Your task to perform on an android device: turn on improve location accuracy Image 0: 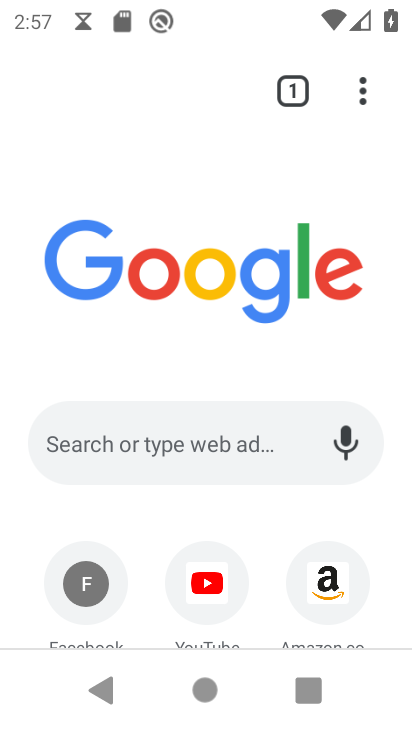
Step 0: press home button
Your task to perform on an android device: turn on improve location accuracy Image 1: 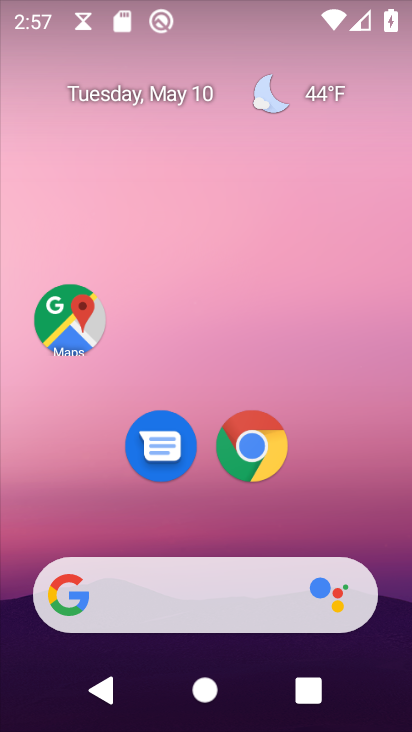
Step 1: drag from (384, 500) to (409, 141)
Your task to perform on an android device: turn on improve location accuracy Image 2: 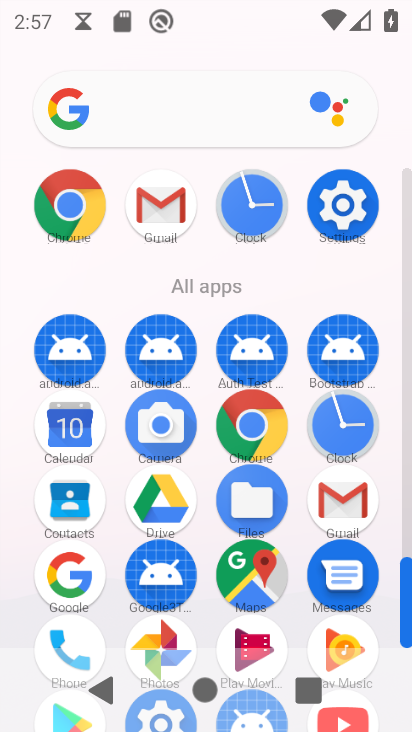
Step 2: click (348, 220)
Your task to perform on an android device: turn on improve location accuracy Image 3: 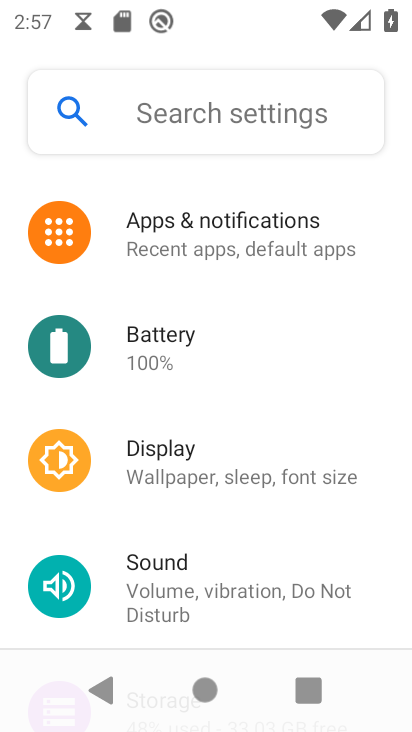
Step 3: drag from (250, 503) to (342, 186)
Your task to perform on an android device: turn on improve location accuracy Image 4: 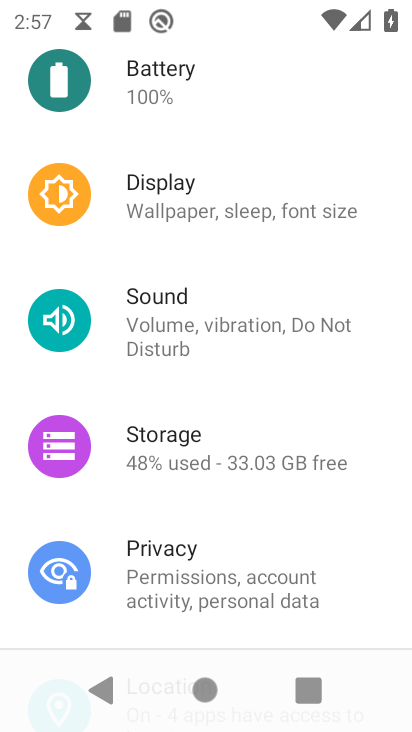
Step 4: drag from (305, 544) to (335, 143)
Your task to perform on an android device: turn on improve location accuracy Image 5: 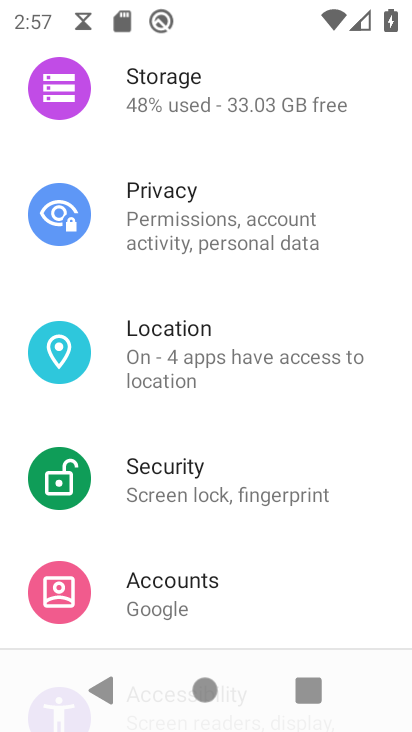
Step 5: click (173, 353)
Your task to perform on an android device: turn on improve location accuracy Image 6: 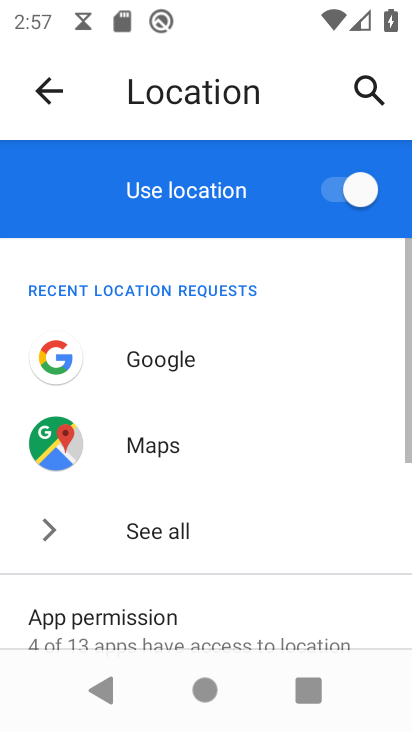
Step 6: drag from (253, 453) to (280, 289)
Your task to perform on an android device: turn on improve location accuracy Image 7: 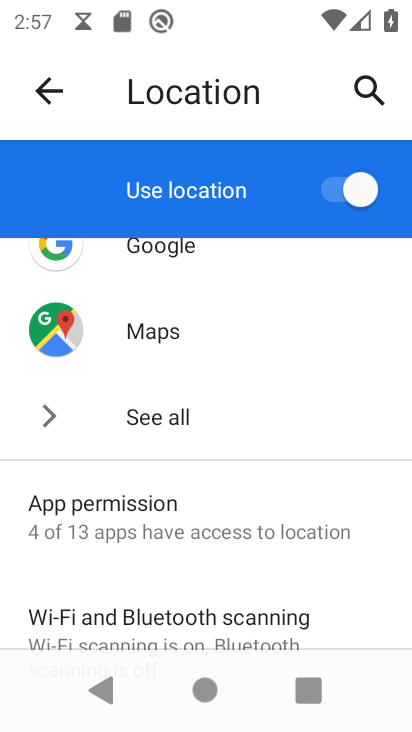
Step 7: click (285, 278)
Your task to perform on an android device: turn on improve location accuracy Image 8: 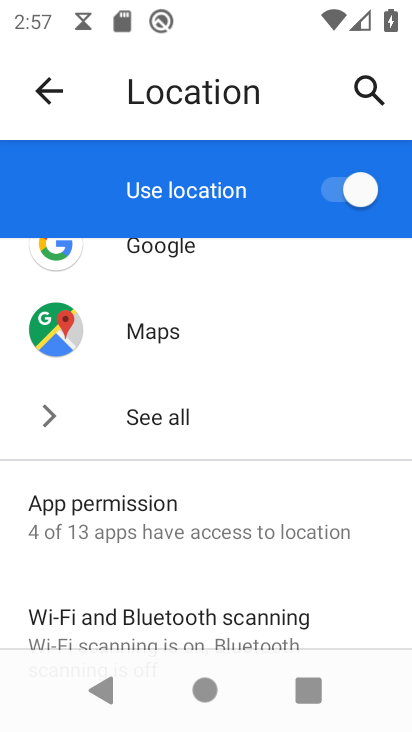
Step 8: drag from (193, 480) to (208, 268)
Your task to perform on an android device: turn on improve location accuracy Image 9: 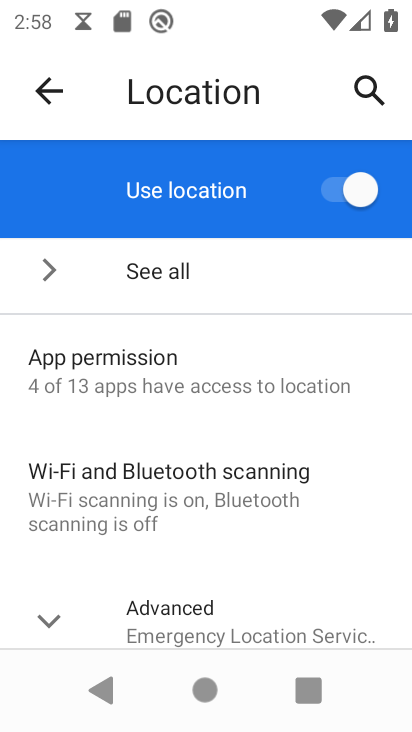
Step 9: drag from (201, 570) to (234, 285)
Your task to perform on an android device: turn on improve location accuracy Image 10: 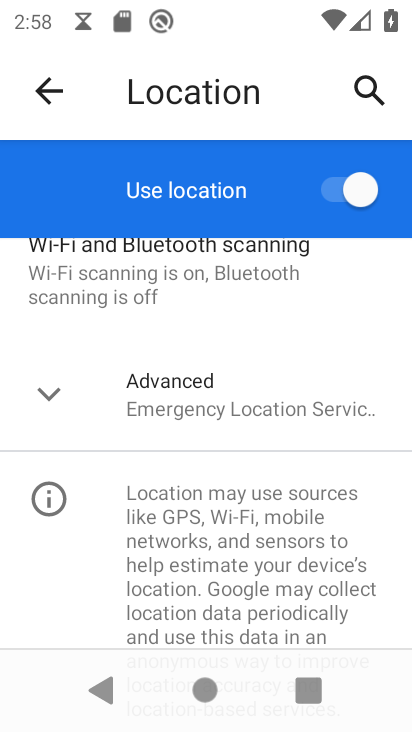
Step 10: click (199, 412)
Your task to perform on an android device: turn on improve location accuracy Image 11: 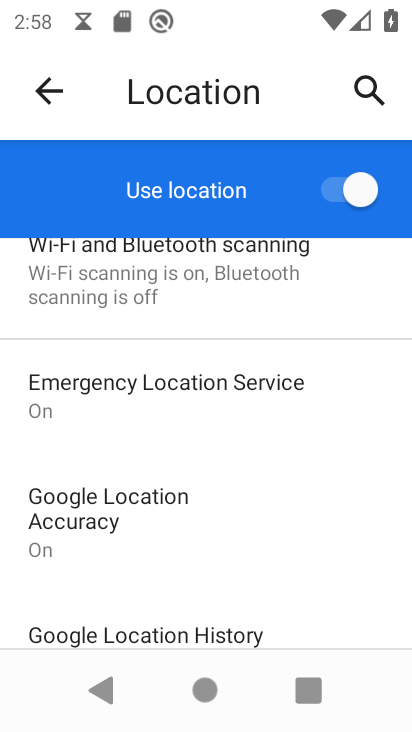
Step 11: click (135, 508)
Your task to perform on an android device: turn on improve location accuracy Image 12: 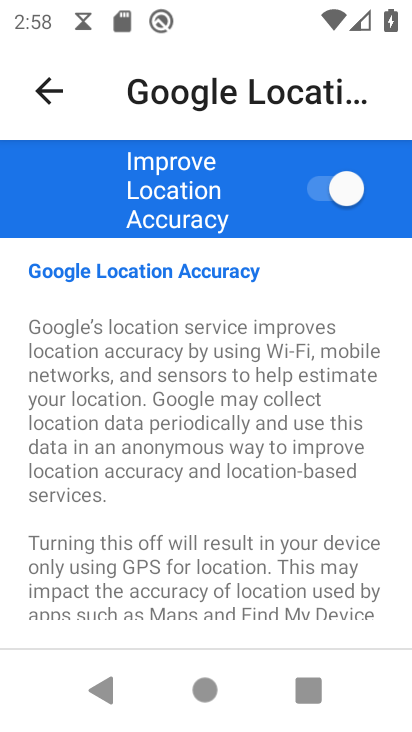
Step 12: task complete